Your task to perform on an android device: delete a single message in the gmail app Image 0: 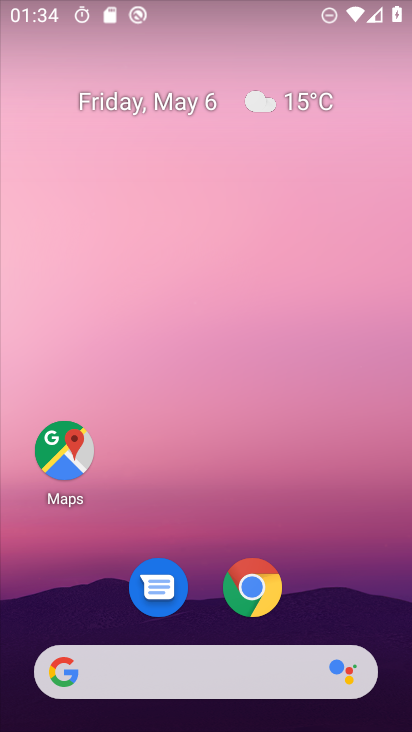
Step 0: click (302, 249)
Your task to perform on an android device: delete a single message in the gmail app Image 1: 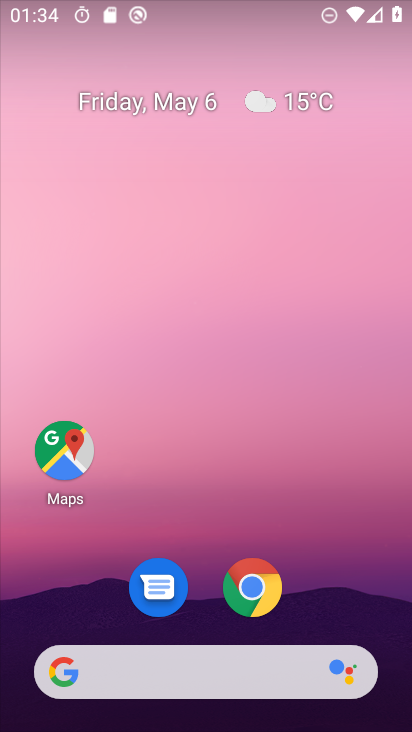
Step 1: drag from (398, 651) to (405, 176)
Your task to perform on an android device: delete a single message in the gmail app Image 2: 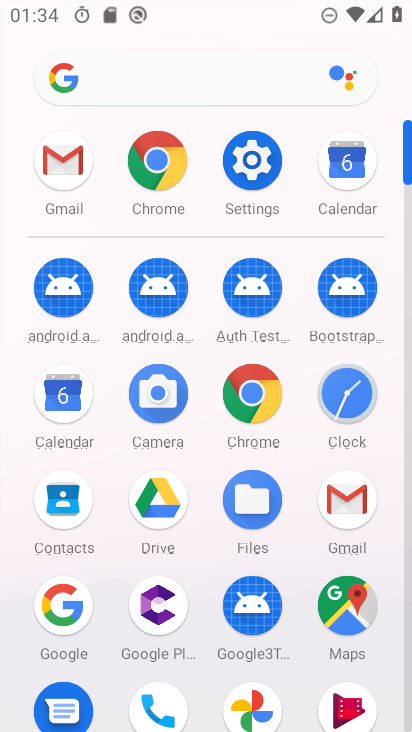
Step 2: click (354, 510)
Your task to perform on an android device: delete a single message in the gmail app Image 3: 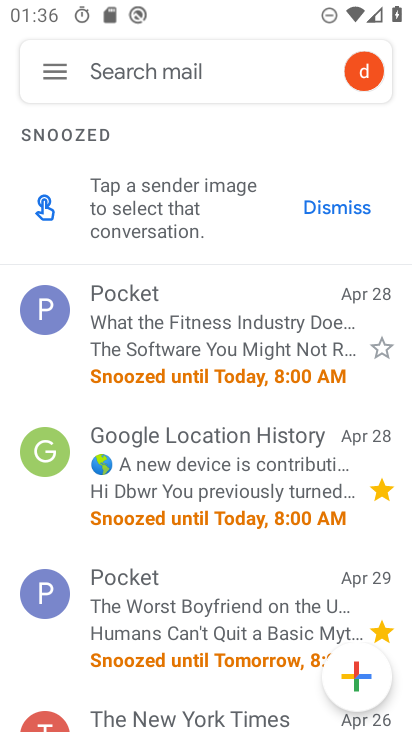
Step 3: click (53, 74)
Your task to perform on an android device: delete a single message in the gmail app Image 4: 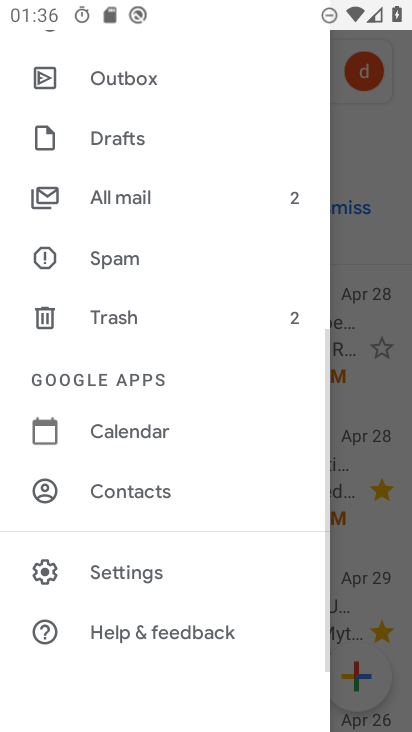
Step 4: drag from (232, 78) to (249, 507)
Your task to perform on an android device: delete a single message in the gmail app Image 5: 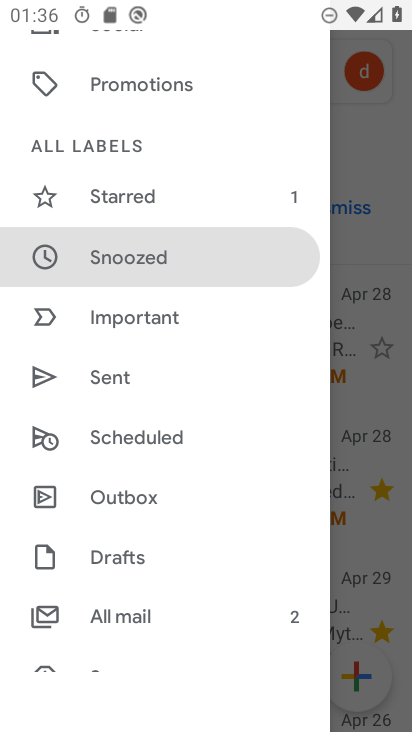
Step 5: drag from (231, 220) to (217, 541)
Your task to perform on an android device: delete a single message in the gmail app Image 6: 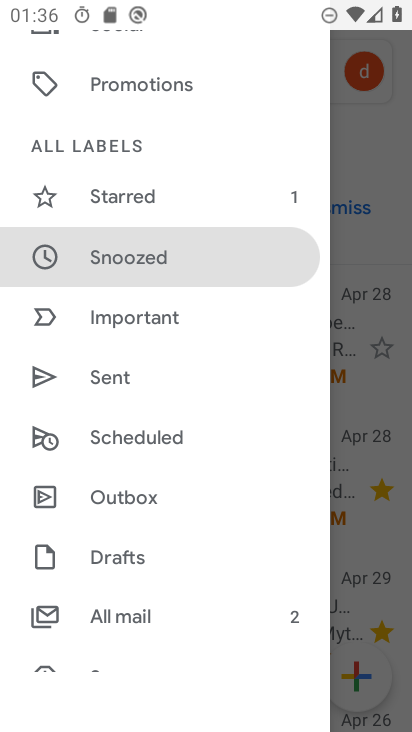
Step 6: drag from (272, 272) to (275, 520)
Your task to perform on an android device: delete a single message in the gmail app Image 7: 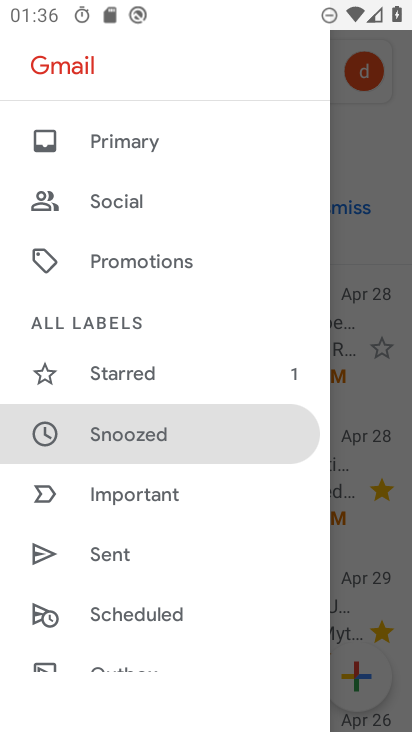
Step 7: drag from (247, 133) to (245, 609)
Your task to perform on an android device: delete a single message in the gmail app Image 8: 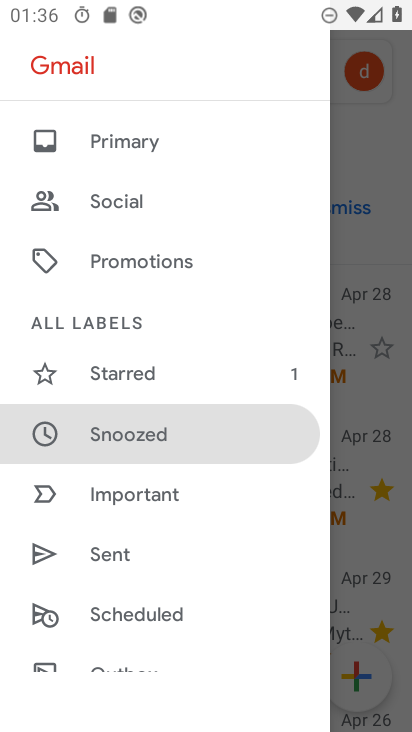
Step 8: drag from (234, 140) to (277, 588)
Your task to perform on an android device: delete a single message in the gmail app Image 9: 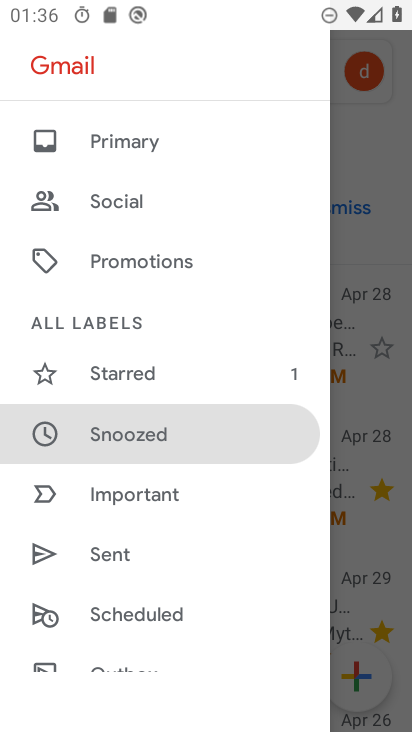
Step 9: drag from (228, 165) to (314, 667)
Your task to perform on an android device: delete a single message in the gmail app Image 10: 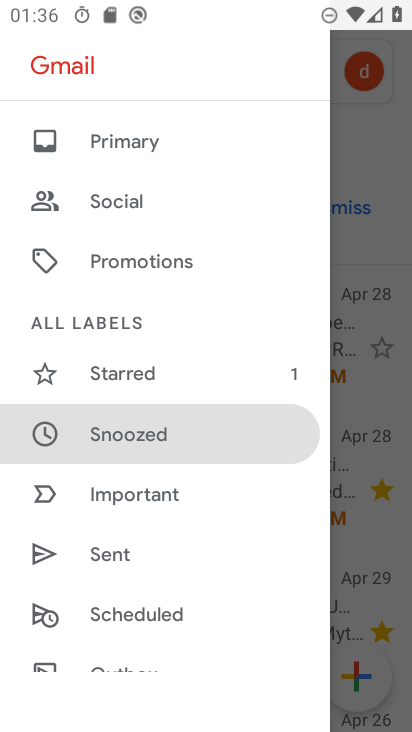
Step 10: click (105, 145)
Your task to perform on an android device: delete a single message in the gmail app Image 11: 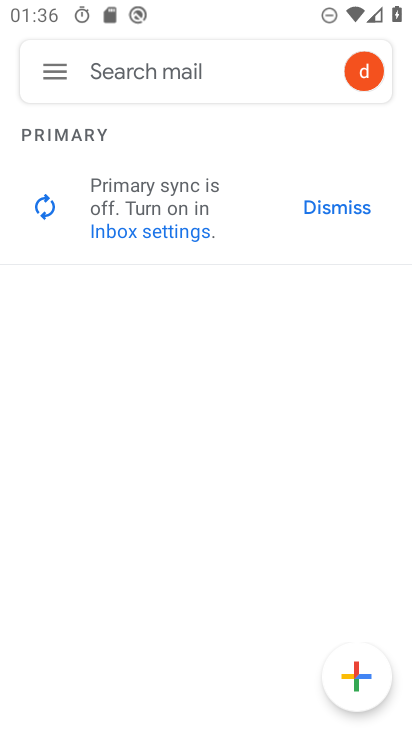
Step 11: click (57, 69)
Your task to perform on an android device: delete a single message in the gmail app Image 12: 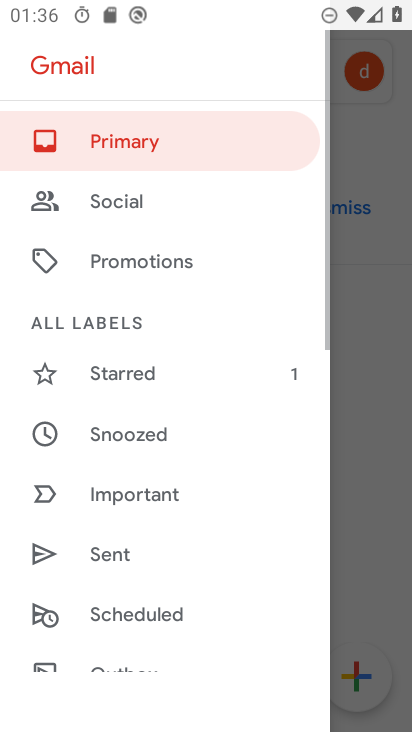
Step 12: click (167, 147)
Your task to perform on an android device: delete a single message in the gmail app Image 13: 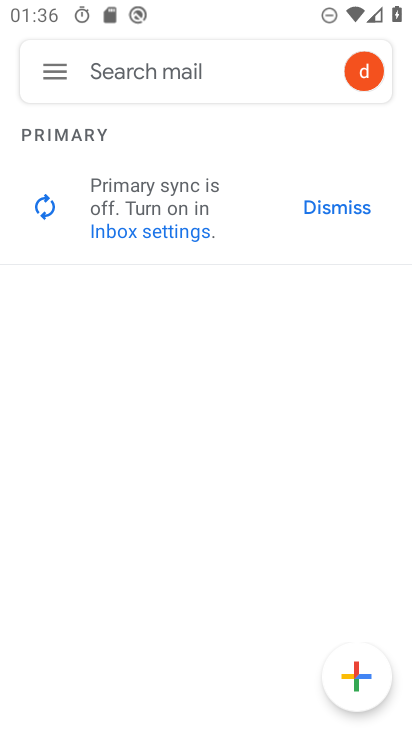
Step 13: task complete